Your task to perform on an android device: Clear all items from cart on ebay.com. Search for logitech g pro on ebay.com, select the first entry, and add it to the cart. Image 0: 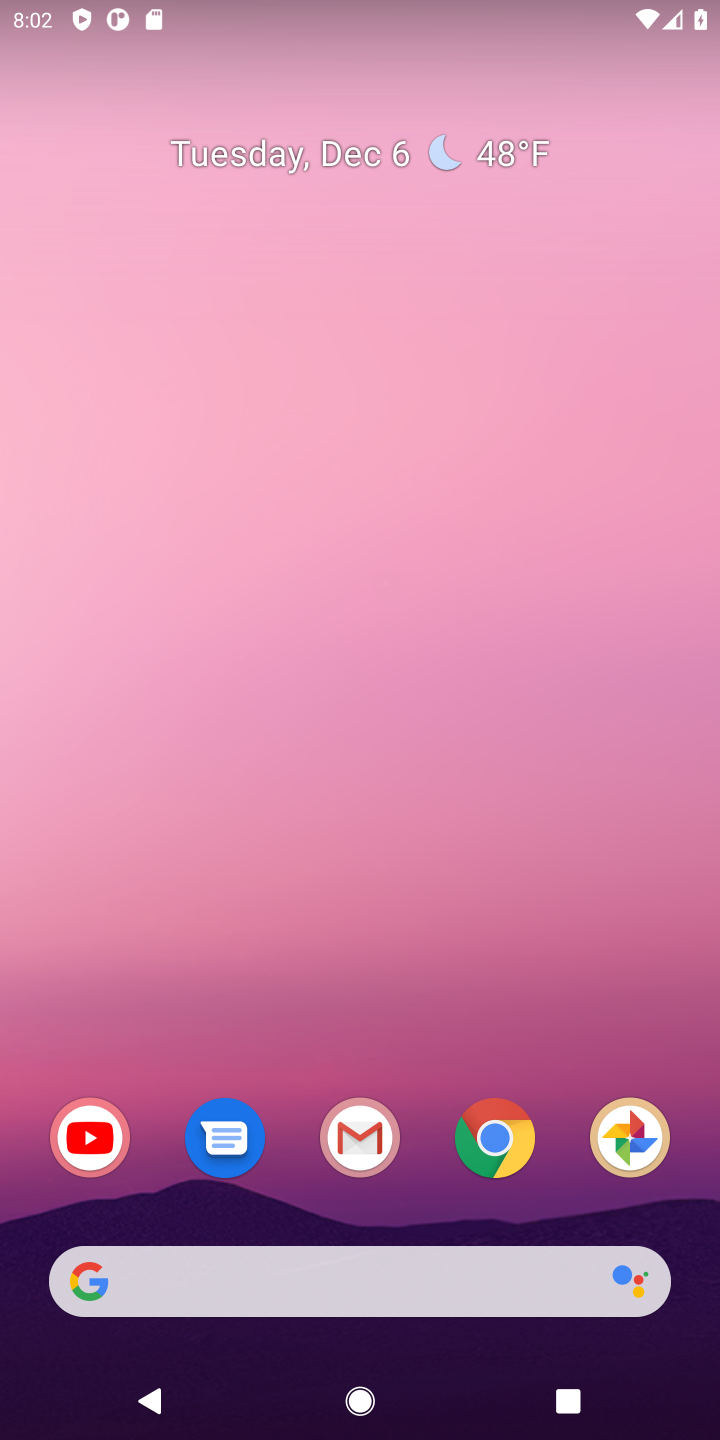
Step 0: click (496, 1145)
Your task to perform on an android device: Clear all items from cart on ebay.com. Search for logitech g pro on ebay.com, select the first entry, and add it to the cart. Image 1: 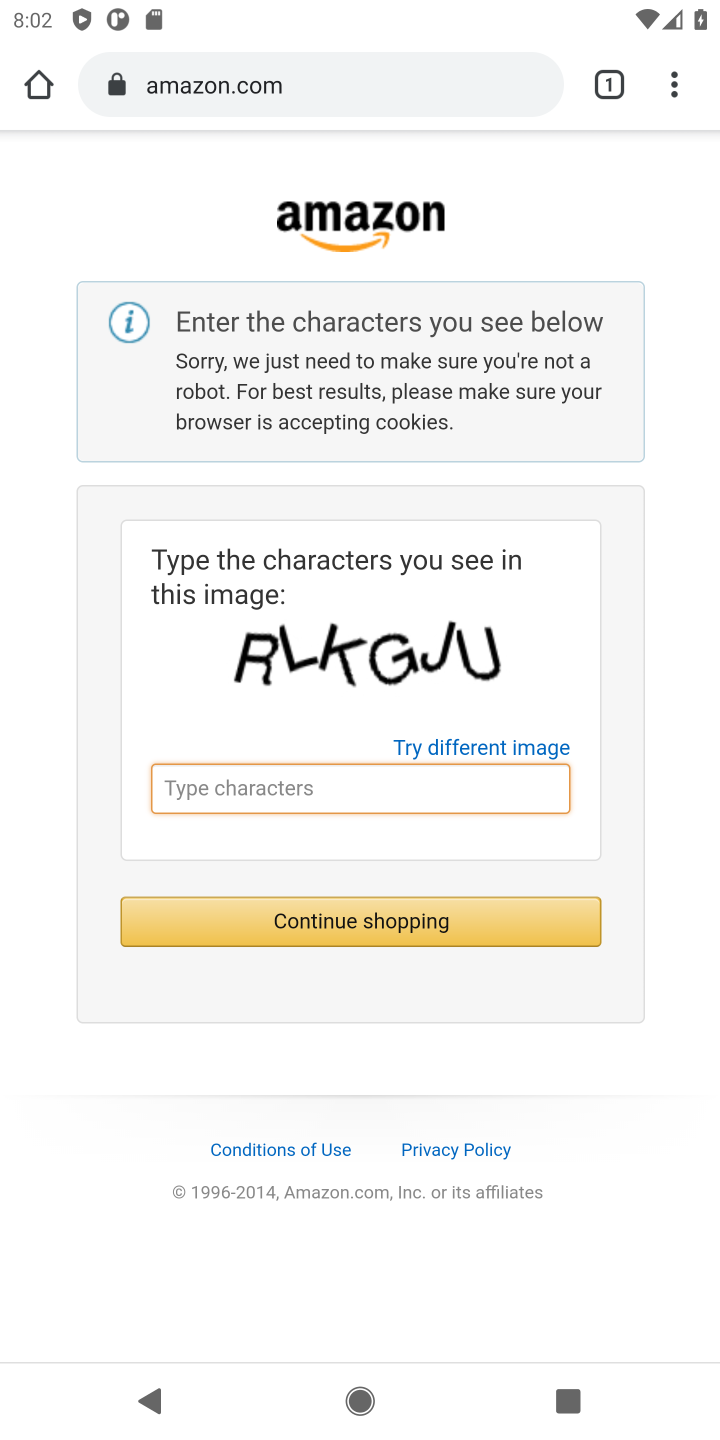
Step 1: click (264, 81)
Your task to perform on an android device: Clear all items from cart on ebay.com. Search for logitech g pro on ebay.com, select the first entry, and add it to the cart. Image 2: 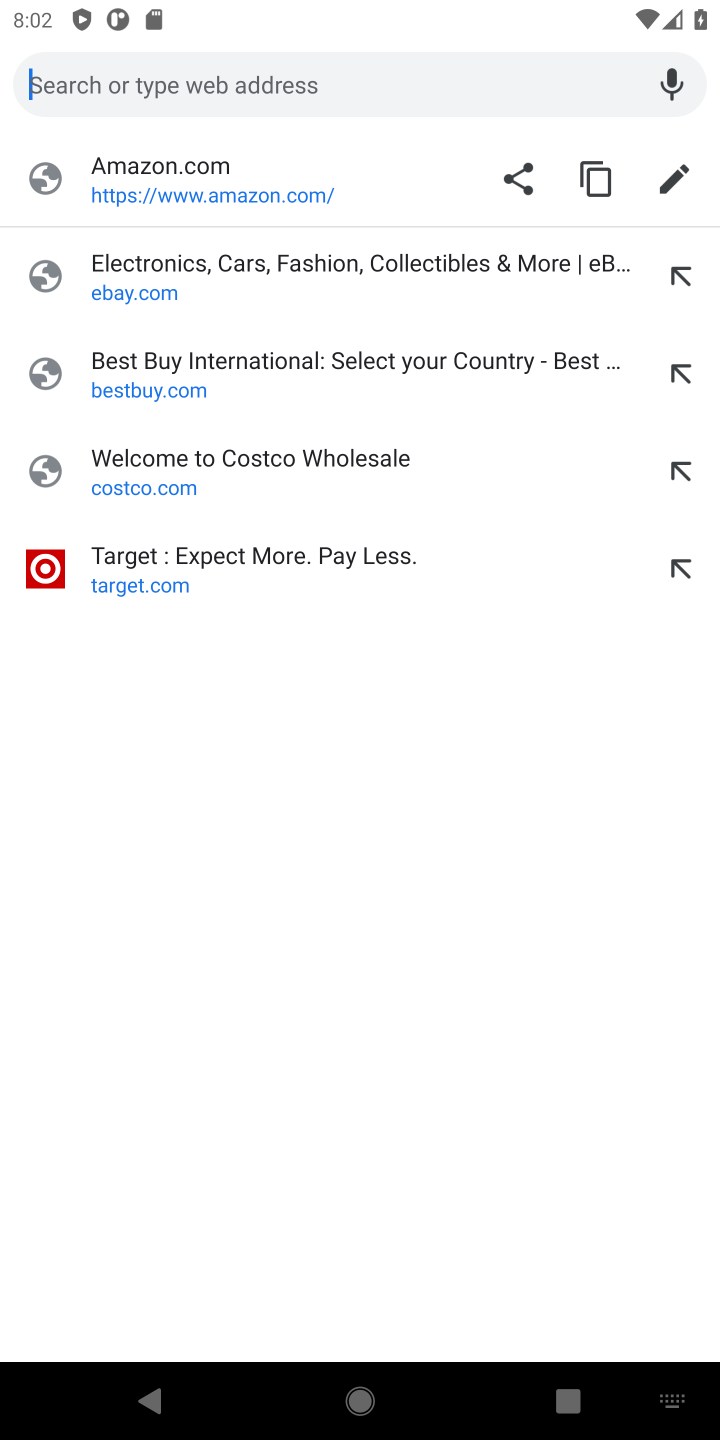
Step 2: click (125, 289)
Your task to perform on an android device: Clear all items from cart on ebay.com. Search for logitech g pro on ebay.com, select the first entry, and add it to the cart. Image 3: 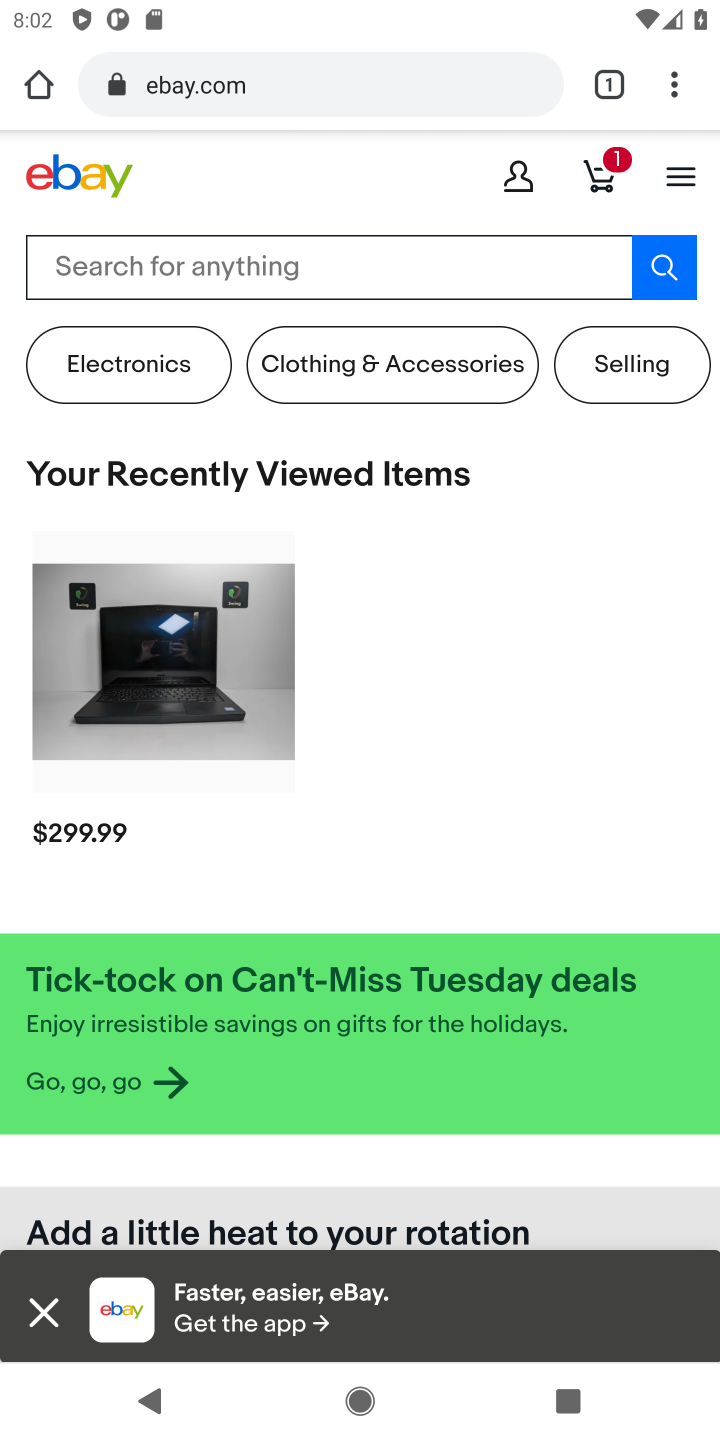
Step 3: click (601, 171)
Your task to perform on an android device: Clear all items from cart on ebay.com. Search for logitech g pro on ebay.com, select the first entry, and add it to the cart. Image 4: 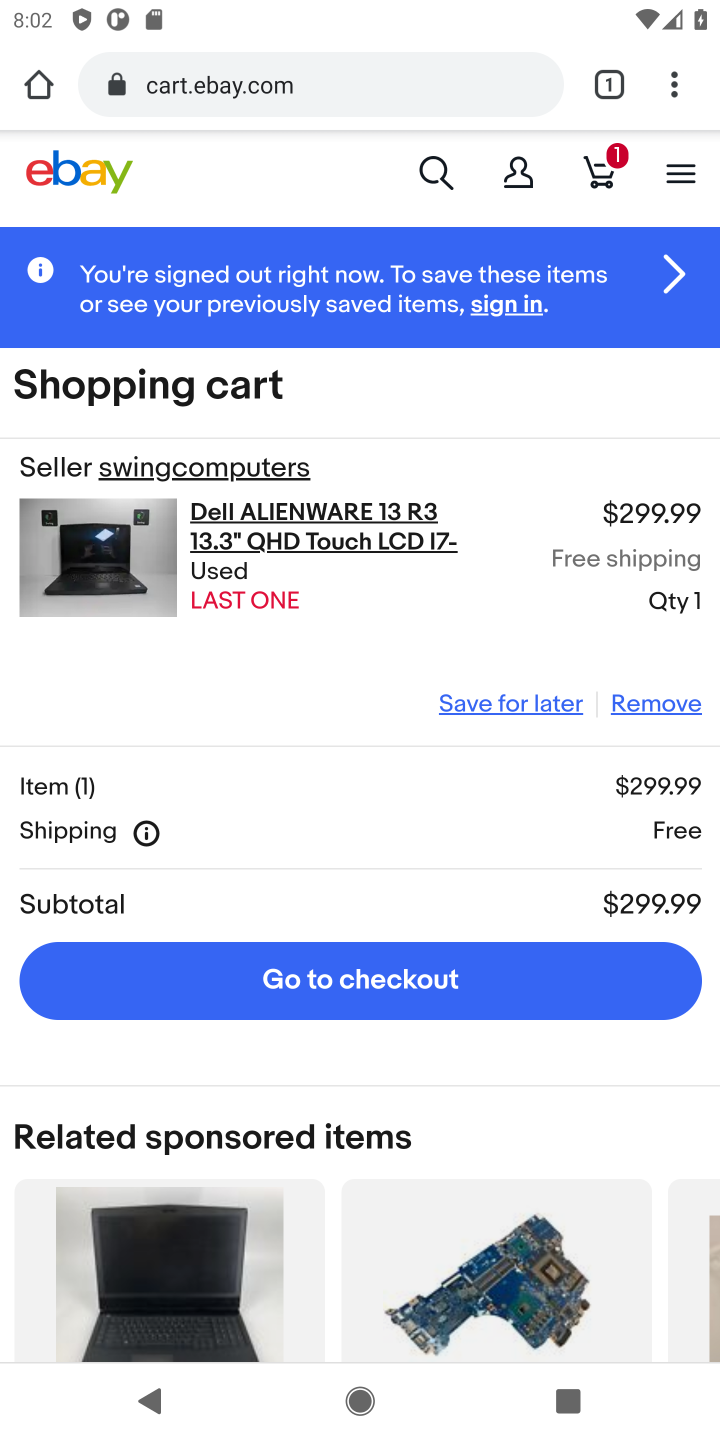
Step 4: click (624, 695)
Your task to perform on an android device: Clear all items from cart on ebay.com. Search for logitech g pro on ebay.com, select the first entry, and add it to the cart. Image 5: 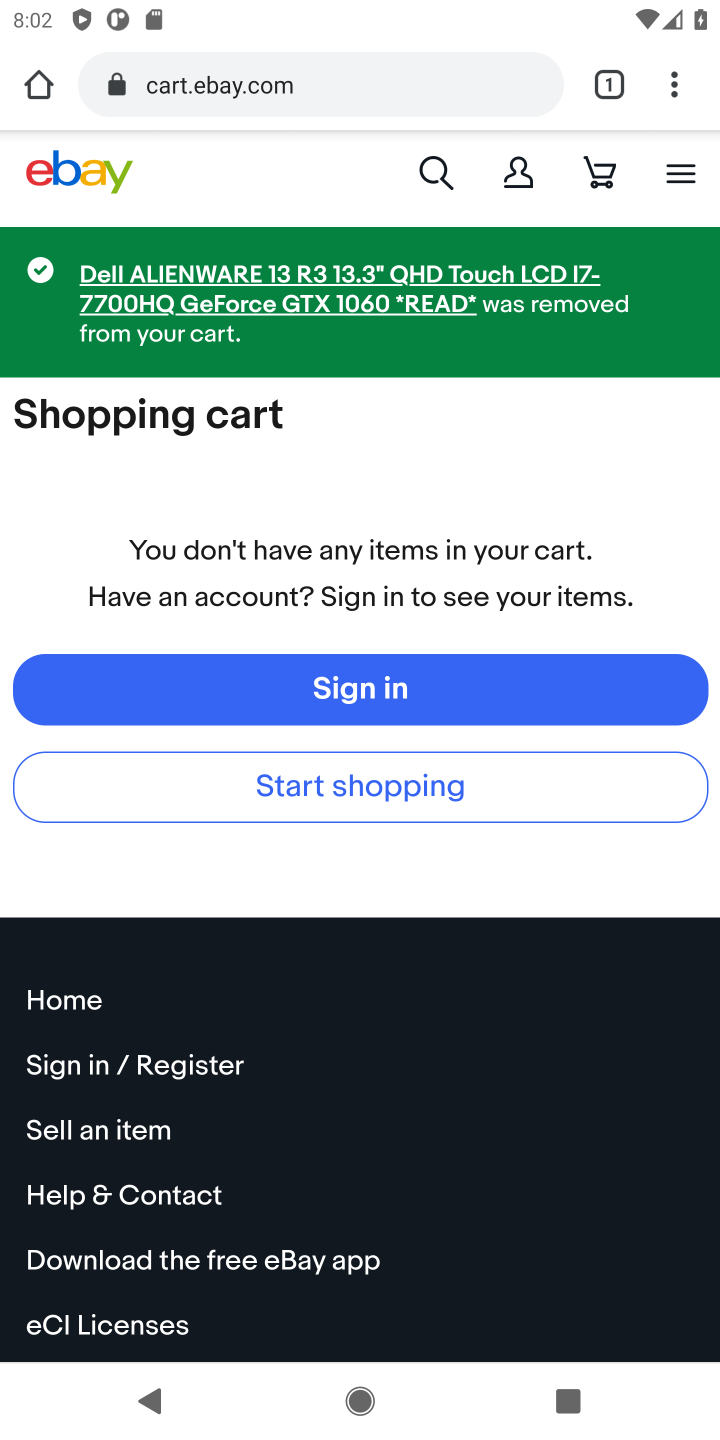
Step 5: click (421, 173)
Your task to perform on an android device: Clear all items from cart on ebay.com. Search for logitech g pro on ebay.com, select the first entry, and add it to the cart. Image 6: 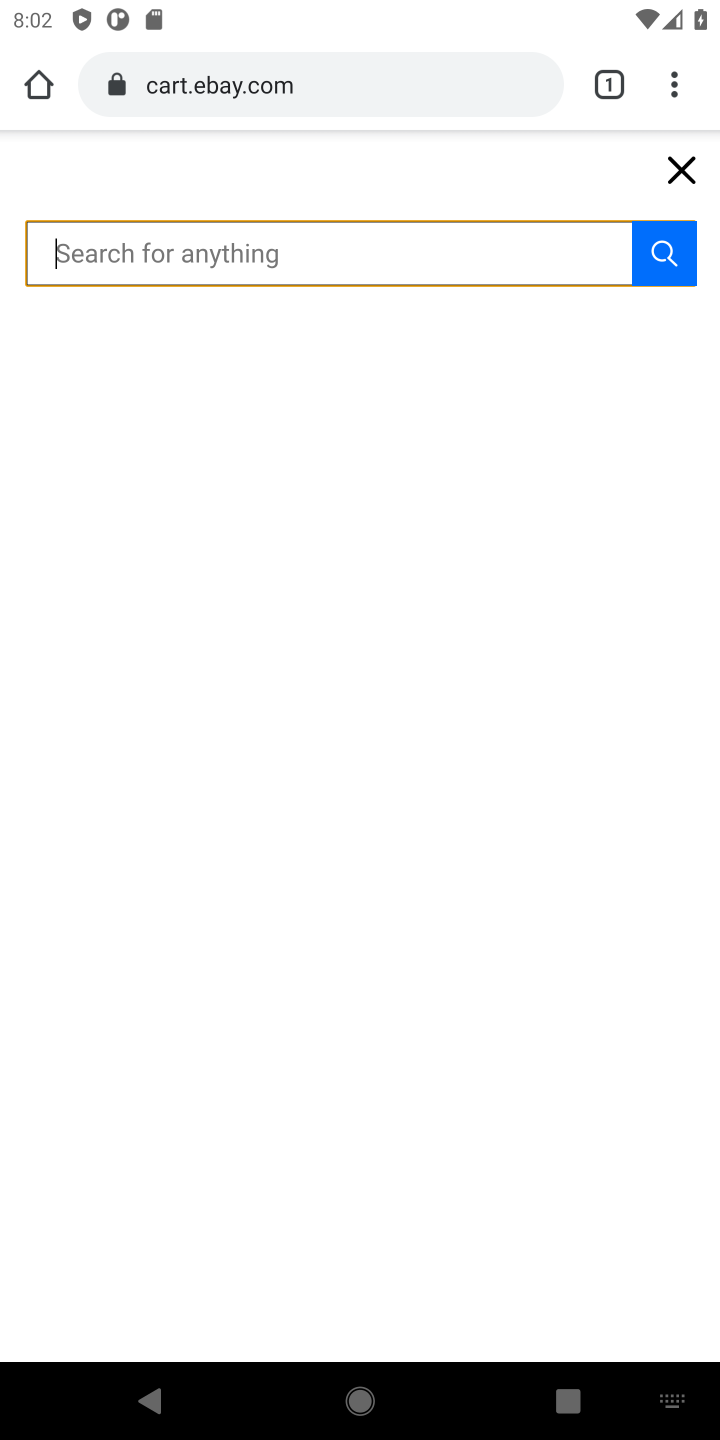
Step 6: type "logitech g pro"
Your task to perform on an android device: Clear all items from cart on ebay.com. Search for logitech g pro on ebay.com, select the first entry, and add it to the cart. Image 7: 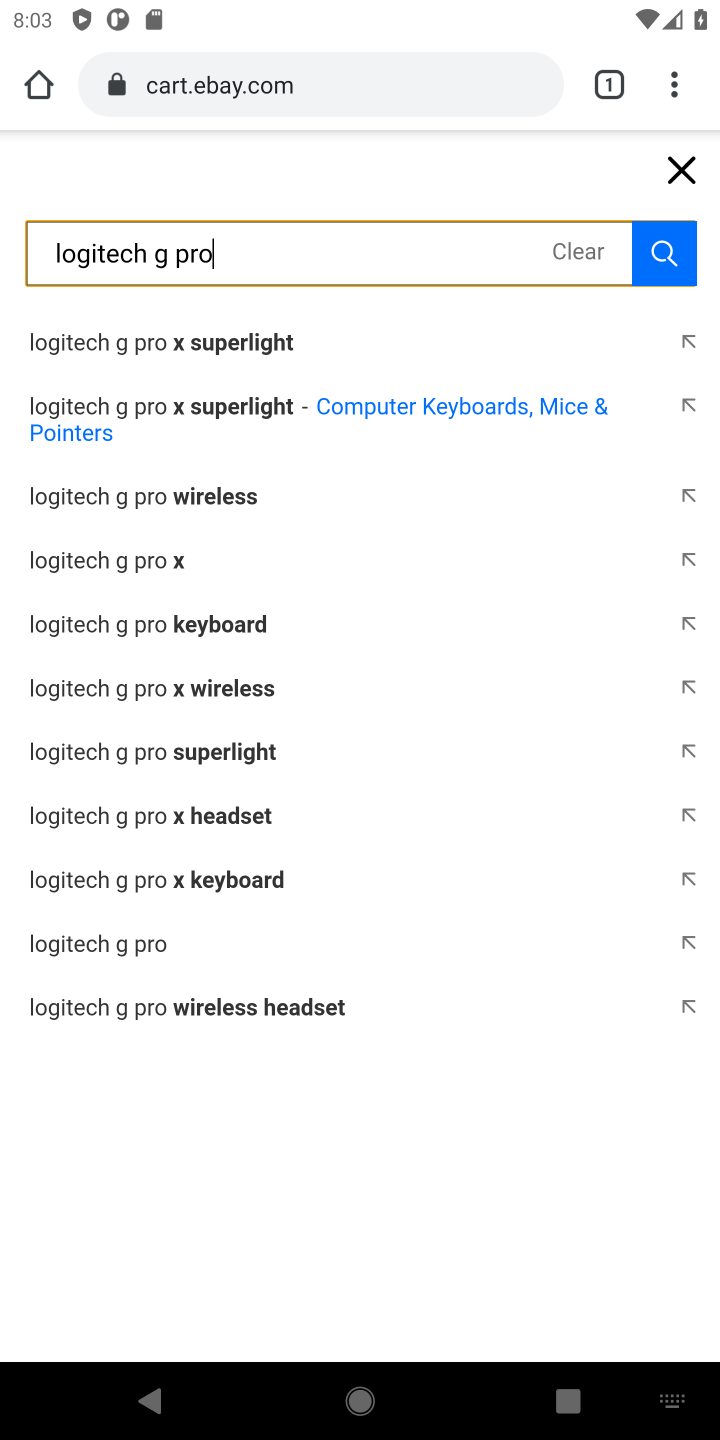
Step 7: click (56, 953)
Your task to perform on an android device: Clear all items from cart on ebay.com. Search for logitech g pro on ebay.com, select the first entry, and add it to the cart. Image 8: 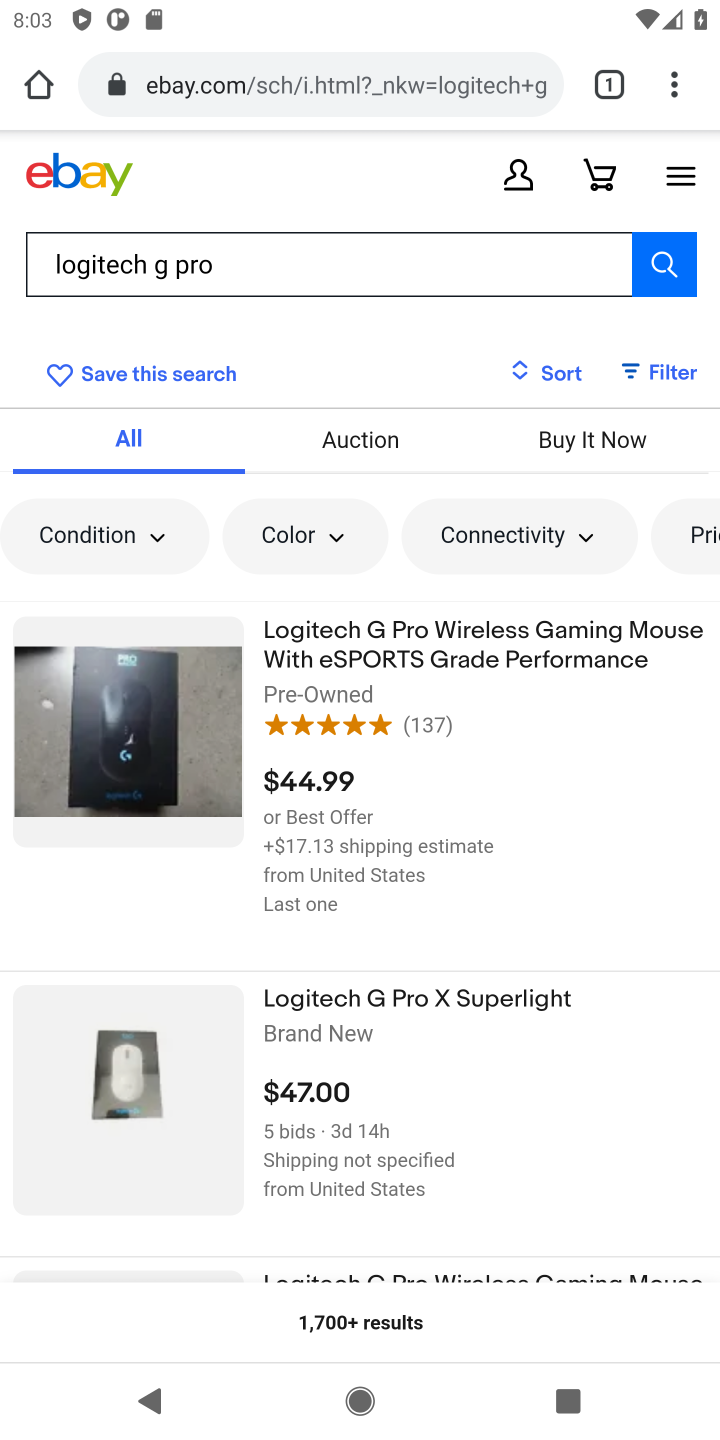
Step 8: click (506, 636)
Your task to perform on an android device: Clear all items from cart on ebay.com. Search for logitech g pro on ebay.com, select the first entry, and add it to the cart. Image 9: 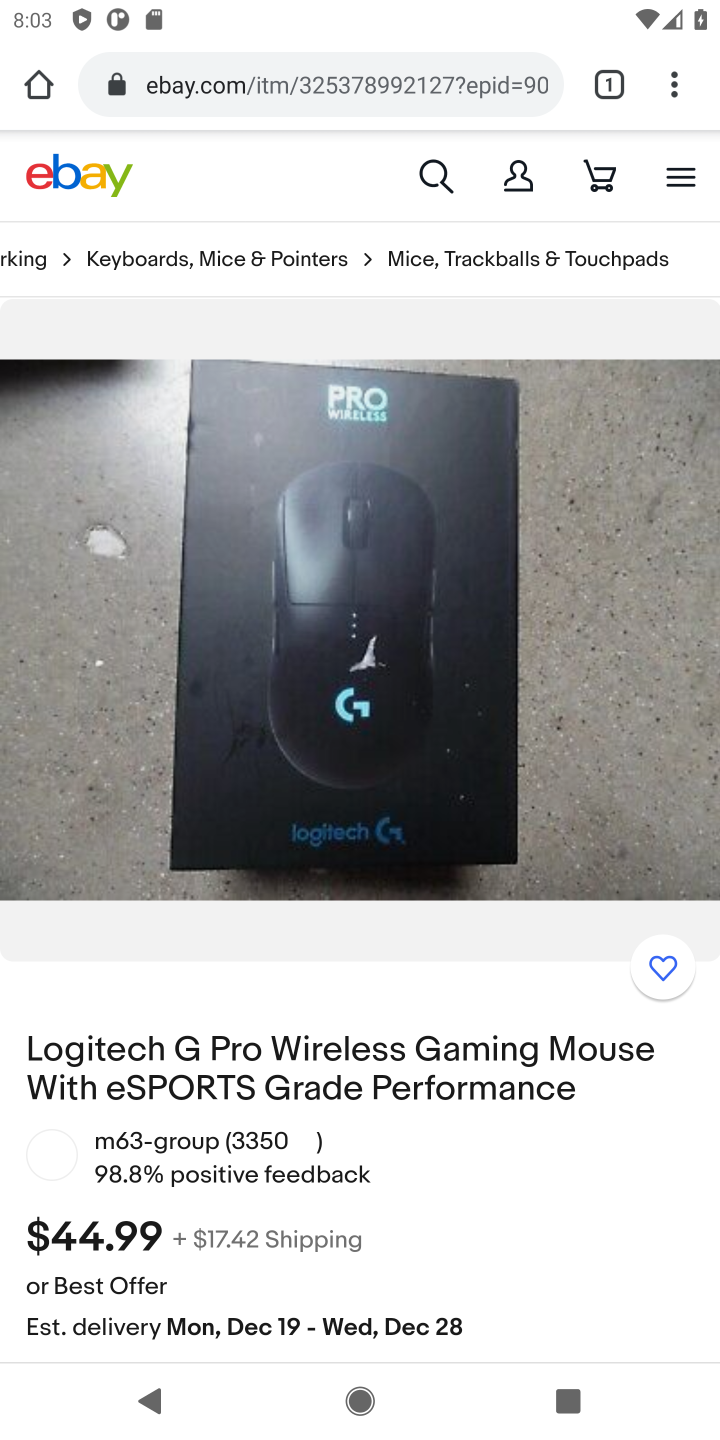
Step 9: drag from (470, 1045) to (527, 458)
Your task to perform on an android device: Clear all items from cart on ebay.com. Search for logitech g pro on ebay.com, select the first entry, and add it to the cart. Image 10: 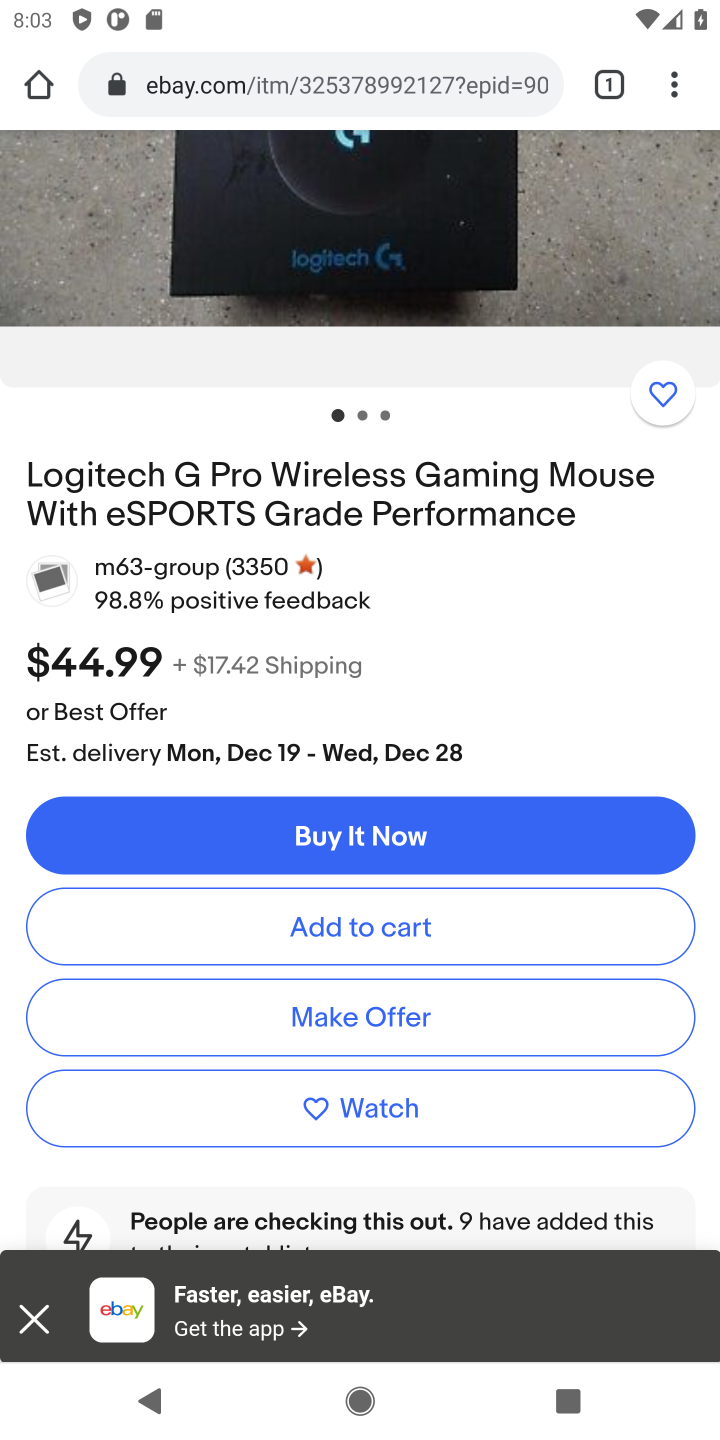
Step 10: click (334, 905)
Your task to perform on an android device: Clear all items from cart on ebay.com. Search for logitech g pro on ebay.com, select the first entry, and add it to the cart. Image 11: 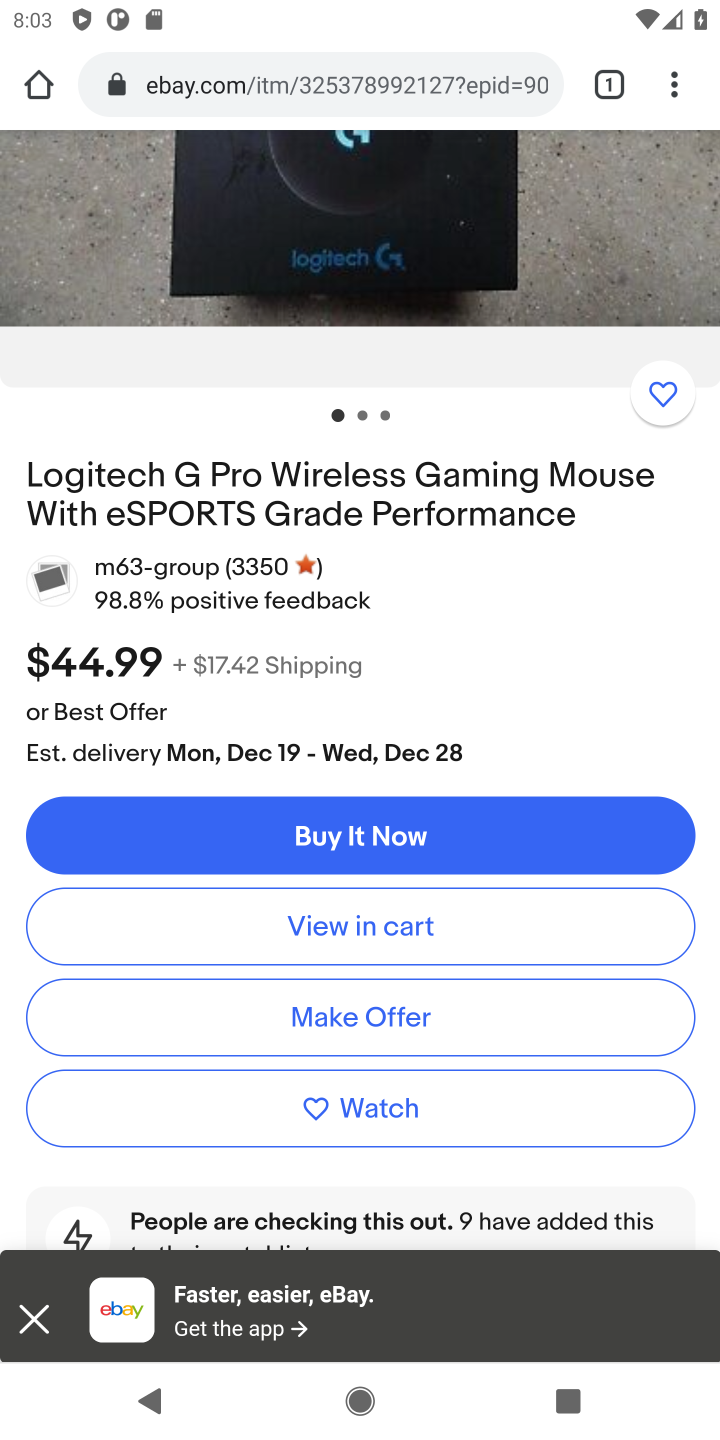
Step 11: task complete